Your task to perform on an android device: choose inbox layout in the gmail app Image 0: 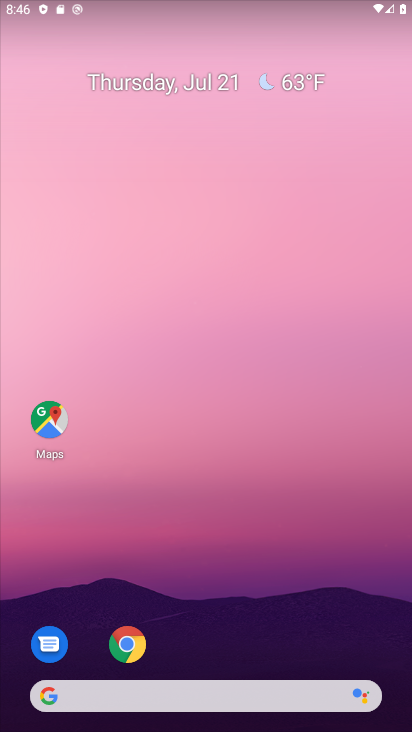
Step 0: press home button
Your task to perform on an android device: choose inbox layout in the gmail app Image 1: 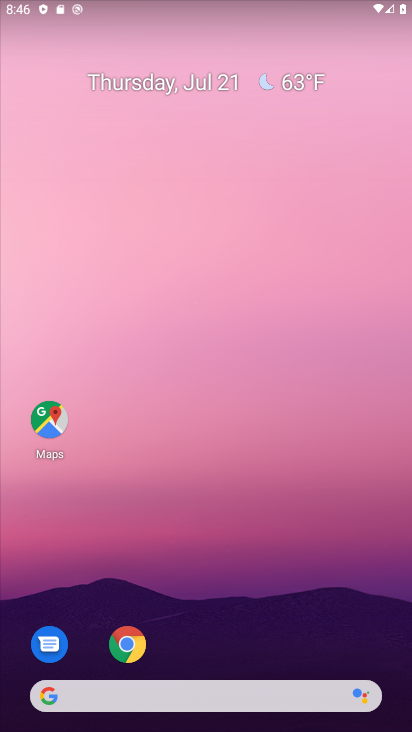
Step 1: drag from (211, 663) to (219, 40)
Your task to perform on an android device: choose inbox layout in the gmail app Image 2: 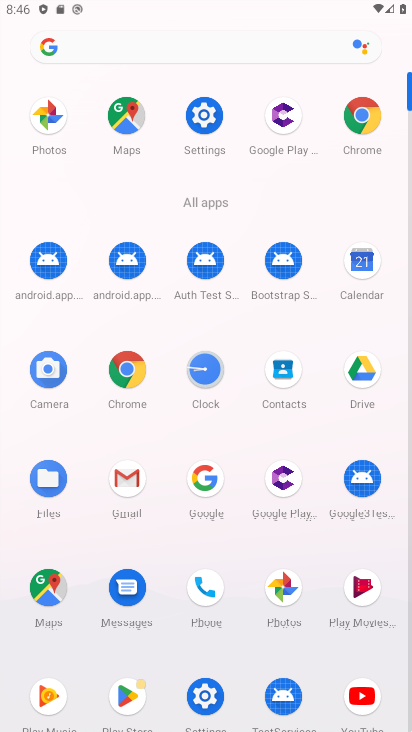
Step 2: click (124, 476)
Your task to perform on an android device: choose inbox layout in the gmail app Image 3: 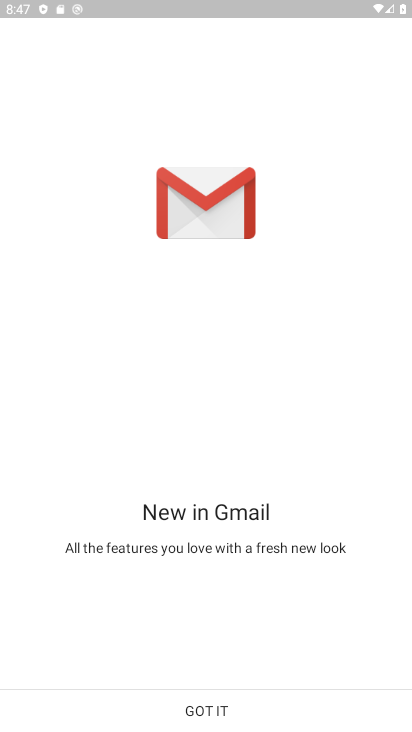
Step 3: click (208, 710)
Your task to perform on an android device: choose inbox layout in the gmail app Image 4: 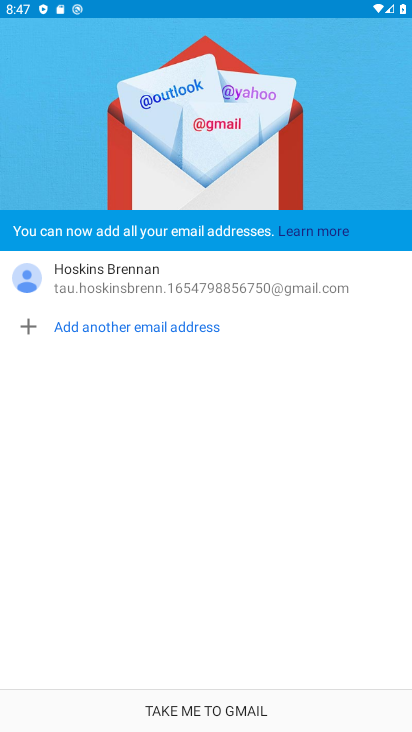
Step 4: click (204, 710)
Your task to perform on an android device: choose inbox layout in the gmail app Image 5: 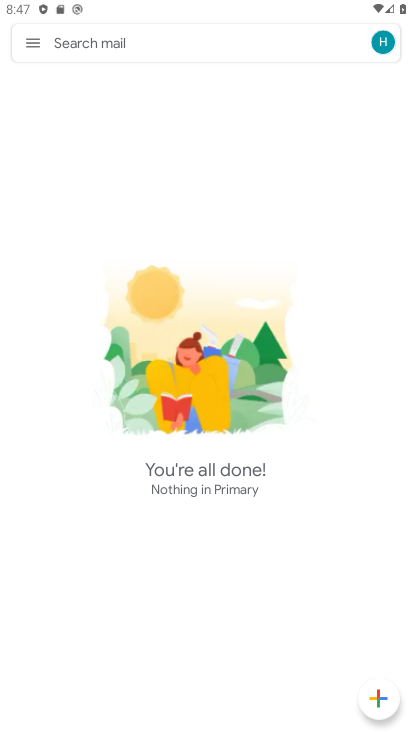
Step 5: click (36, 37)
Your task to perform on an android device: choose inbox layout in the gmail app Image 6: 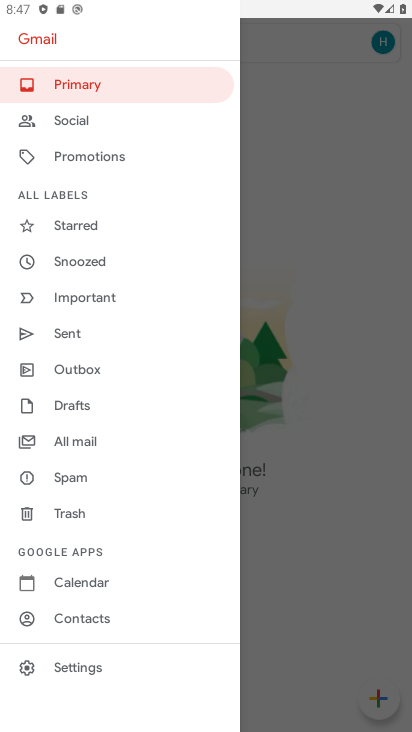
Step 6: drag from (112, 661) to (134, 108)
Your task to perform on an android device: choose inbox layout in the gmail app Image 7: 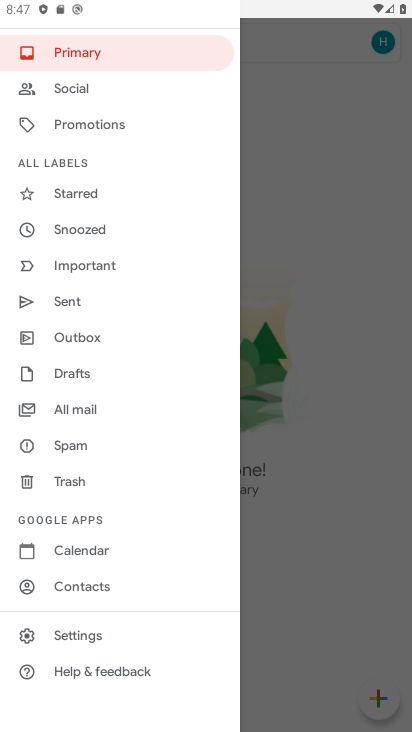
Step 7: click (110, 625)
Your task to perform on an android device: choose inbox layout in the gmail app Image 8: 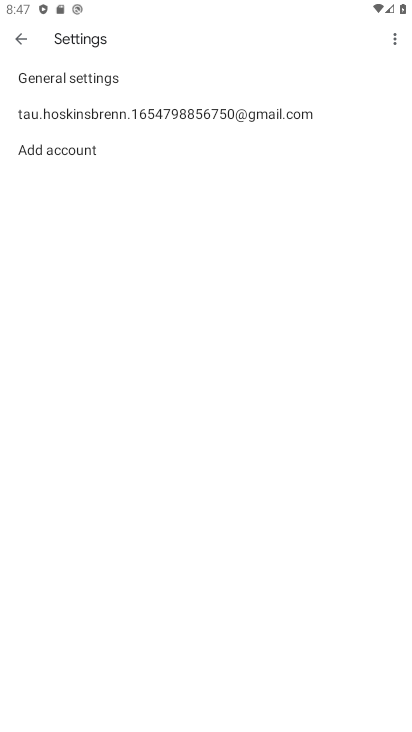
Step 8: click (100, 112)
Your task to perform on an android device: choose inbox layout in the gmail app Image 9: 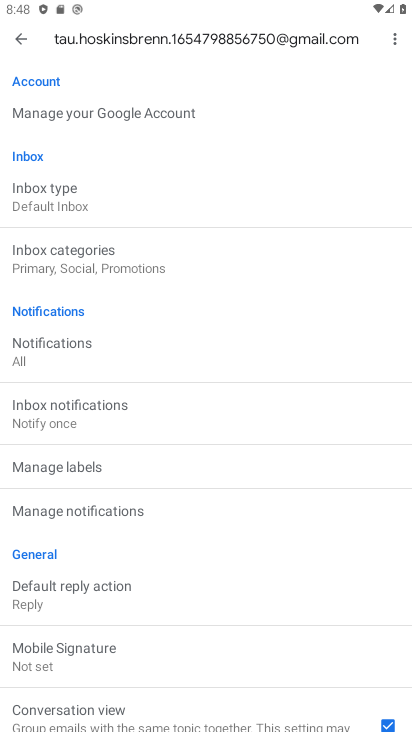
Step 9: click (81, 195)
Your task to perform on an android device: choose inbox layout in the gmail app Image 10: 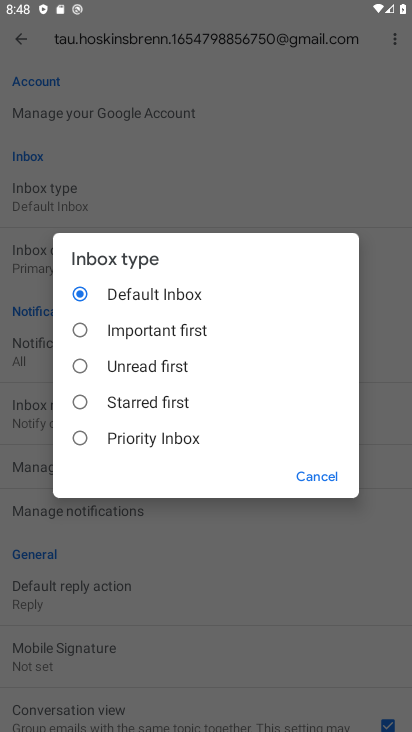
Step 10: click (82, 327)
Your task to perform on an android device: choose inbox layout in the gmail app Image 11: 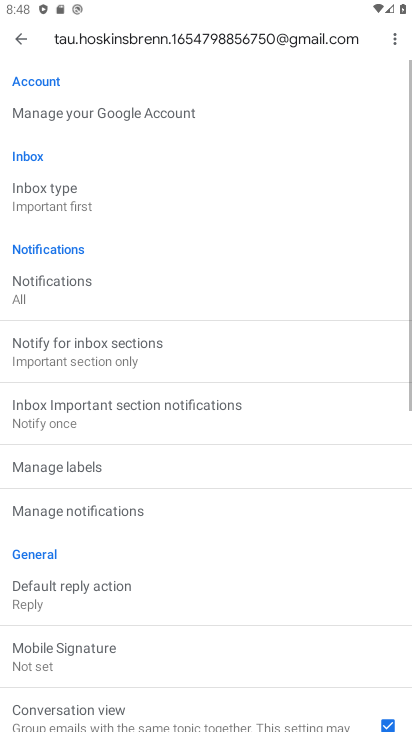
Step 11: task complete